Your task to perform on an android device: Play the last video I watched on Youtube Image 0: 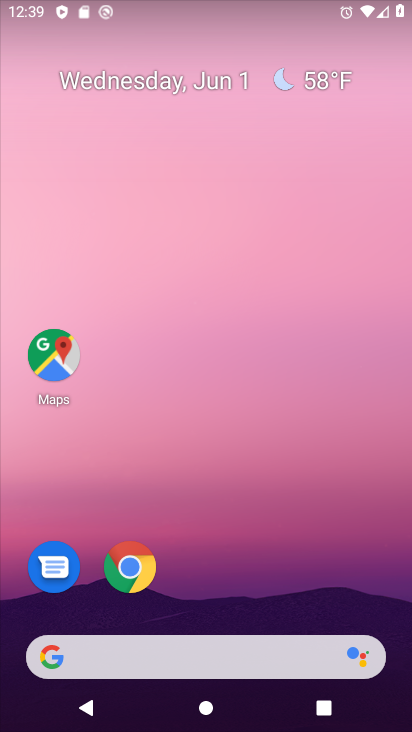
Step 0: drag from (238, 596) to (264, 53)
Your task to perform on an android device: Play the last video I watched on Youtube Image 1: 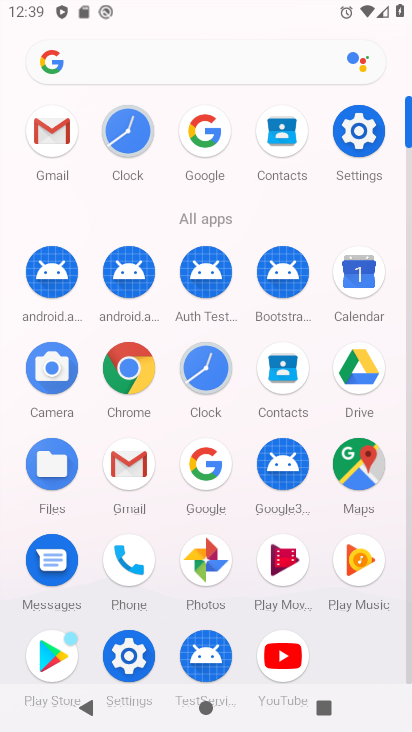
Step 1: click (281, 648)
Your task to perform on an android device: Play the last video I watched on Youtube Image 2: 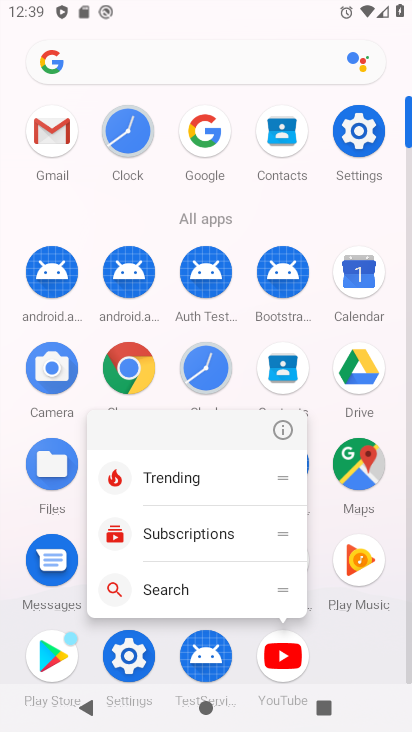
Step 2: click (278, 664)
Your task to perform on an android device: Play the last video I watched on Youtube Image 3: 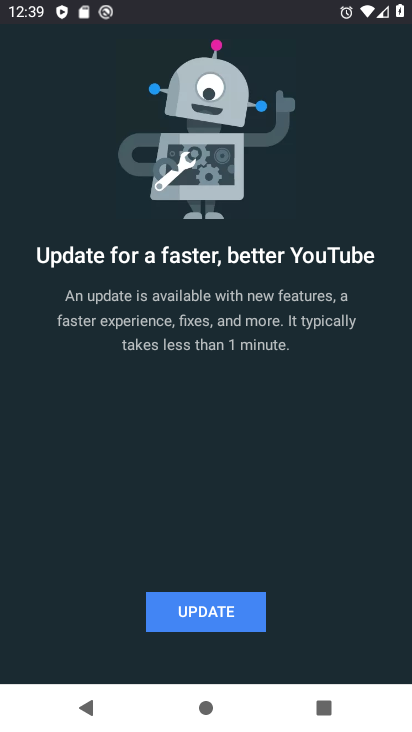
Step 3: click (200, 605)
Your task to perform on an android device: Play the last video I watched on Youtube Image 4: 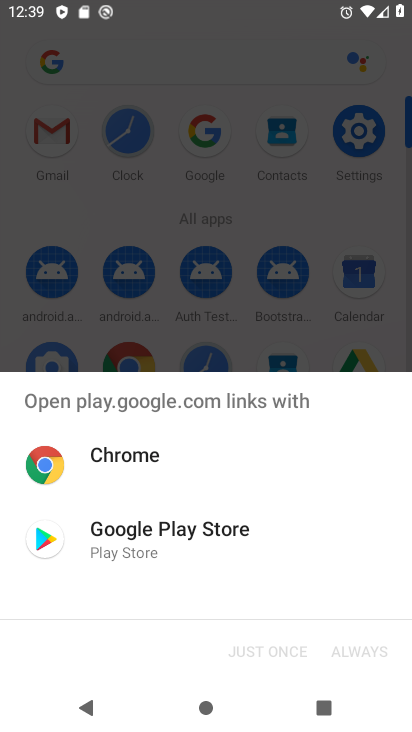
Step 4: click (124, 537)
Your task to perform on an android device: Play the last video I watched on Youtube Image 5: 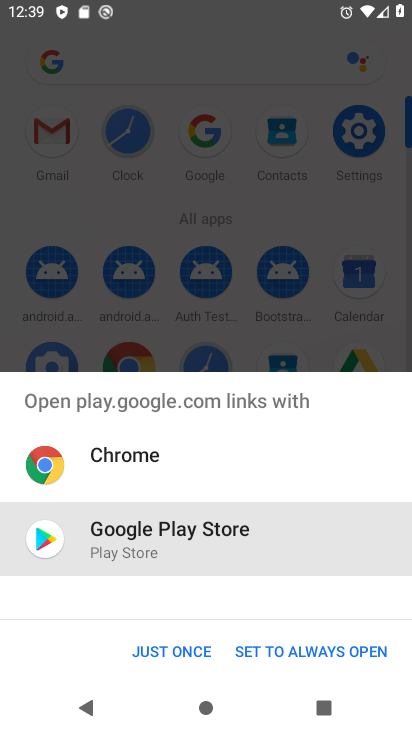
Step 5: click (154, 657)
Your task to perform on an android device: Play the last video I watched on Youtube Image 6: 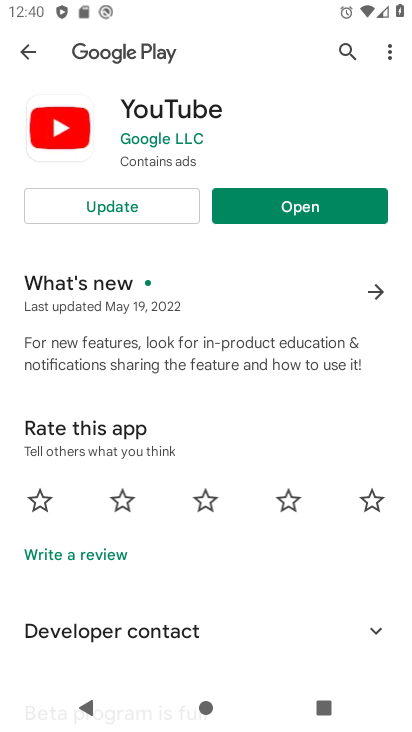
Step 6: click (109, 217)
Your task to perform on an android device: Play the last video I watched on Youtube Image 7: 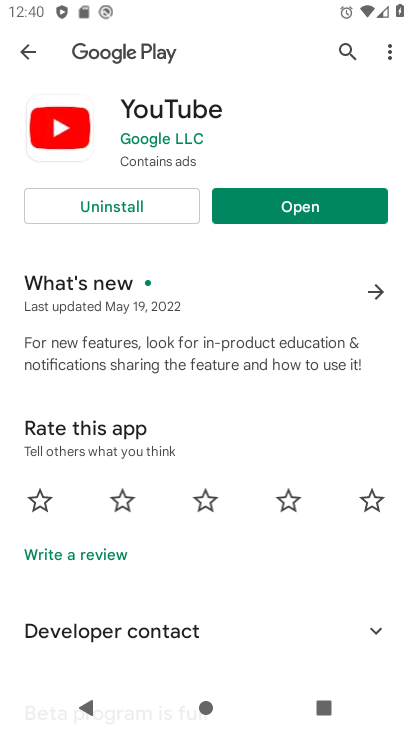
Step 7: click (308, 213)
Your task to perform on an android device: Play the last video I watched on Youtube Image 8: 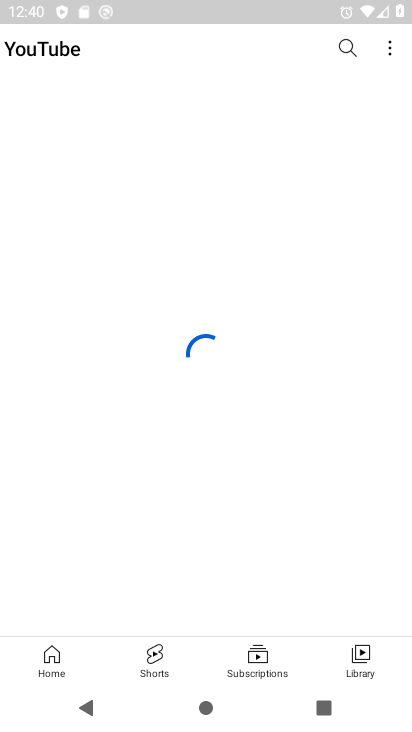
Step 8: click (346, 50)
Your task to perform on an android device: Play the last video I watched on Youtube Image 9: 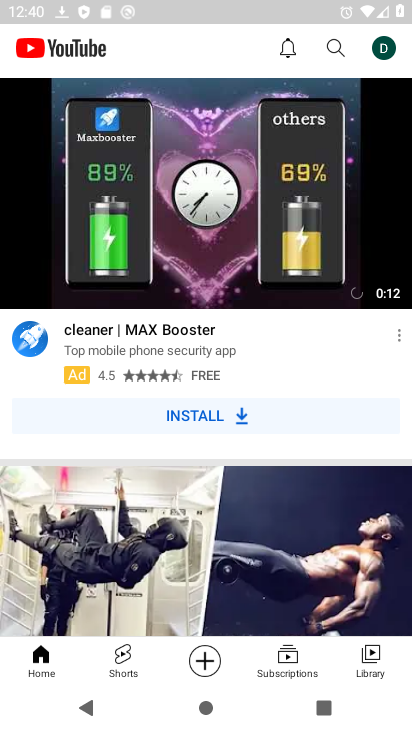
Step 9: click (326, 49)
Your task to perform on an android device: Play the last video I watched on Youtube Image 10: 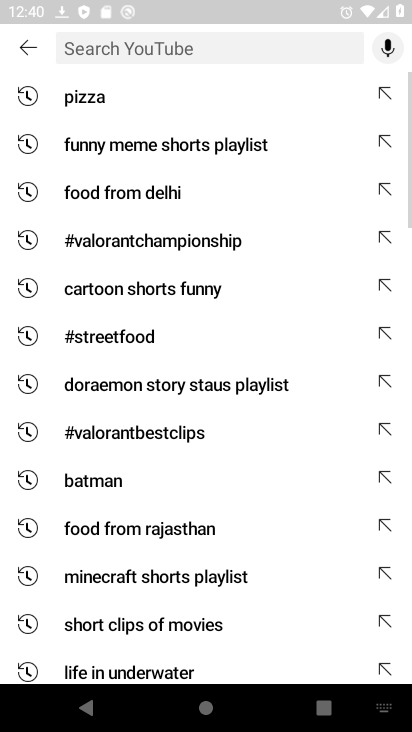
Step 10: click (119, 97)
Your task to perform on an android device: Play the last video I watched on Youtube Image 11: 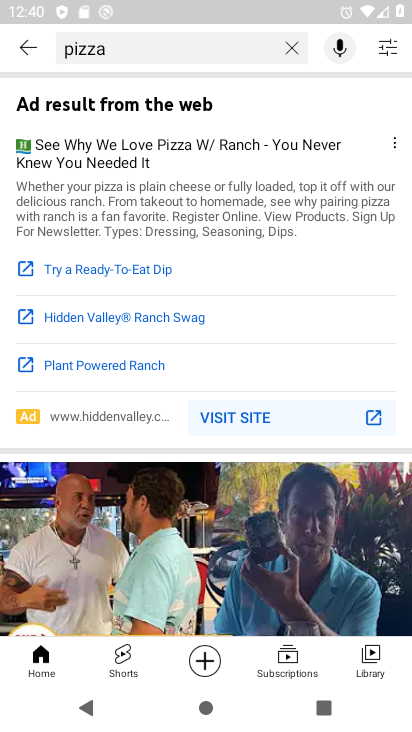
Step 11: click (163, 583)
Your task to perform on an android device: Play the last video I watched on Youtube Image 12: 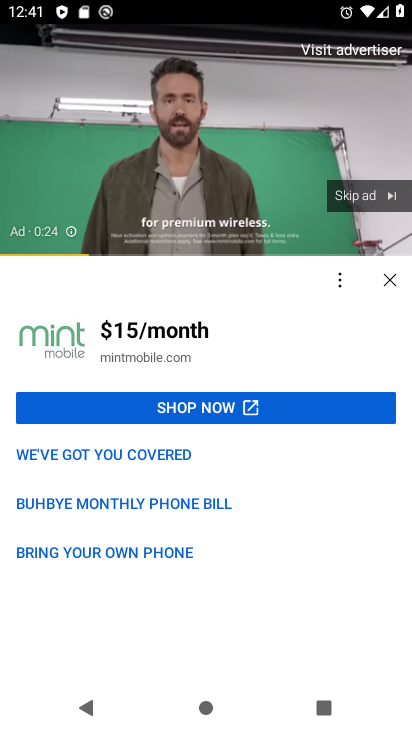
Step 12: click (357, 193)
Your task to perform on an android device: Play the last video I watched on Youtube Image 13: 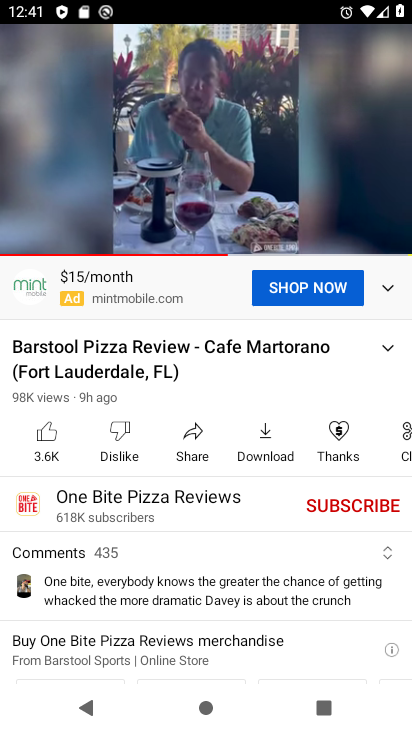
Step 13: task complete